Your task to perform on an android device: turn on the 24-hour format for clock Image 0: 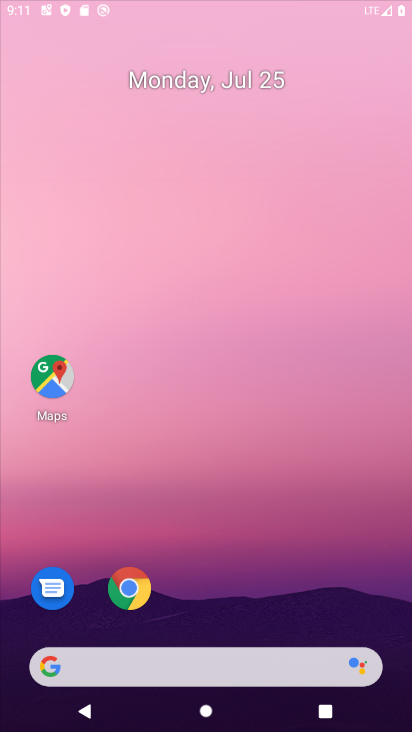
Step 0: drag from (231, 639) to (235, 370)
Your task to perform on an android device: turn on the 24-hour format for clock Image 1: 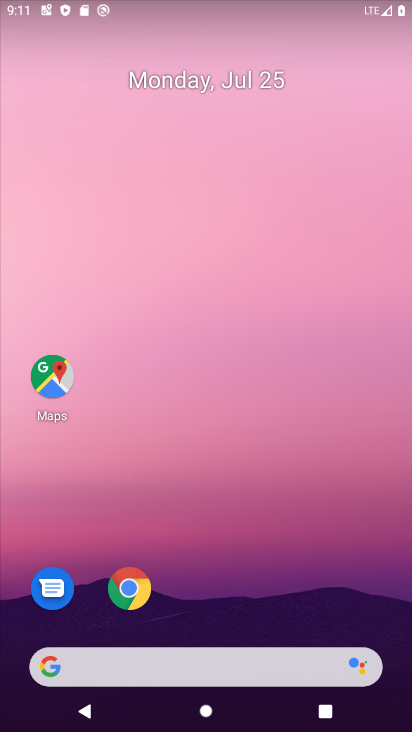
Step 1: drag from (177, 644) to (194, 192)
Your task to perform on an android device: turn on the 24-hour format for clock Image 2: 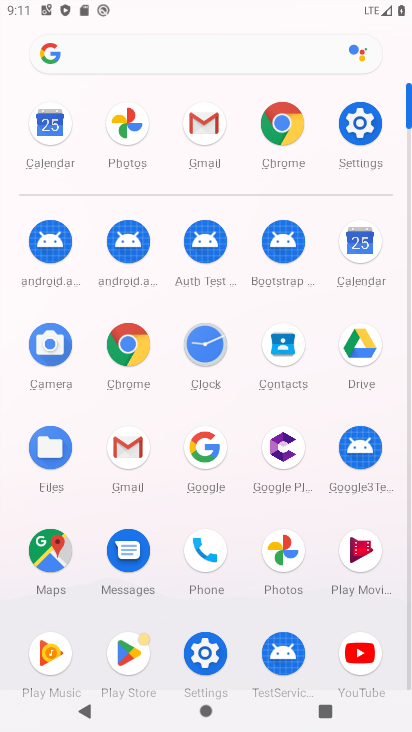
Step 2: click (220, 360)
Your task to perform on an android device: turn on the 24-hour format for clock Image 3: 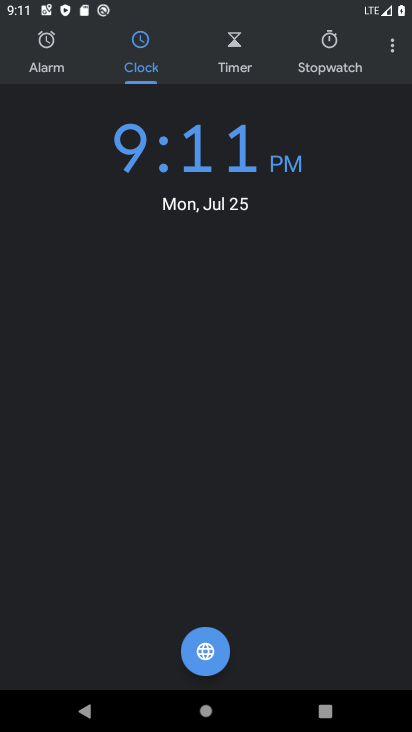
Step 3: click (396, 51)
Your task to perform on an android device: turn on the 24-hour format for clock Image 4: 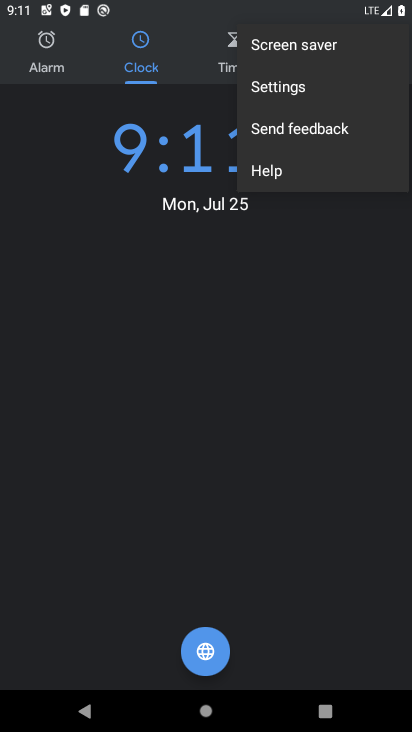
Step 4: click (321, 94)
Your task to perform on an android device: turn on the 24-hour format for clock Image 5: 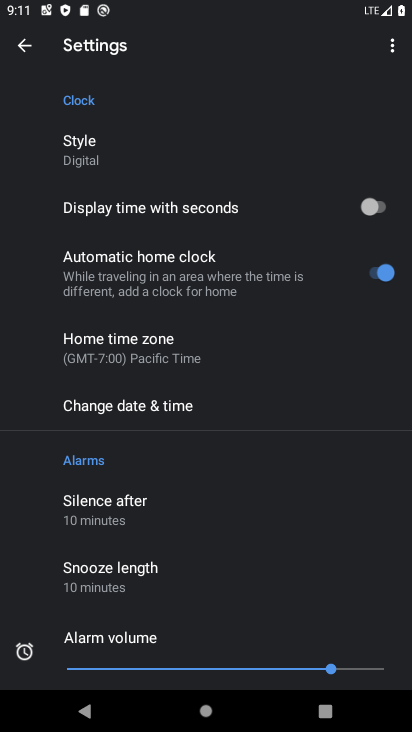
Step 5: click (165, 403)
Your task to perform on an android device: turn on the 24-hour format for clock Image 6: 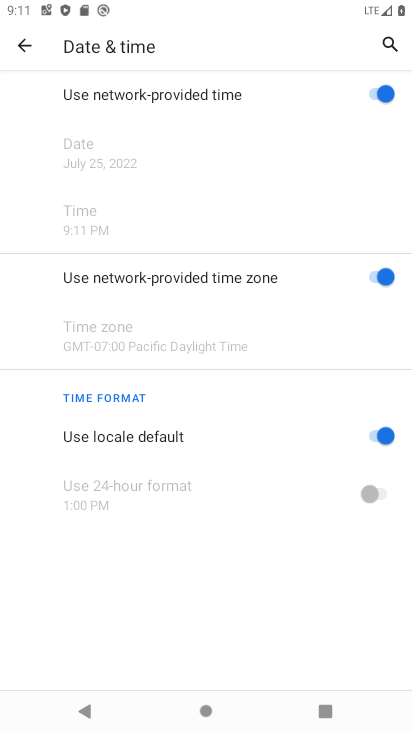
Step 6: click (375, 436)
Your task to perform on an android device: turn on the 24-hour format for clock Image 7: 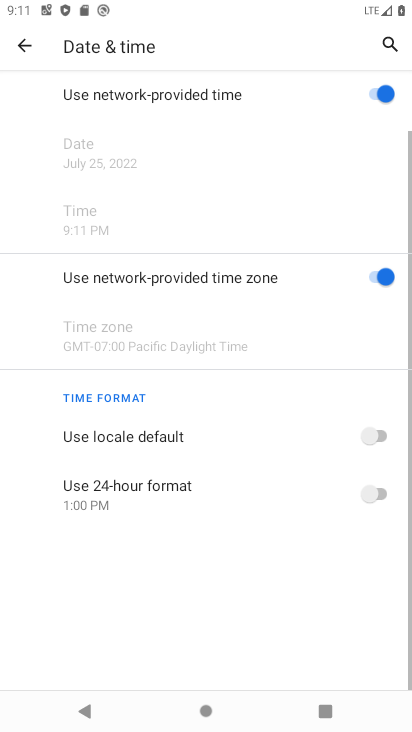
Step 7: click (380, 490)
Your task to perform on an android device: turn on the 24-hour format for clock Image 8: 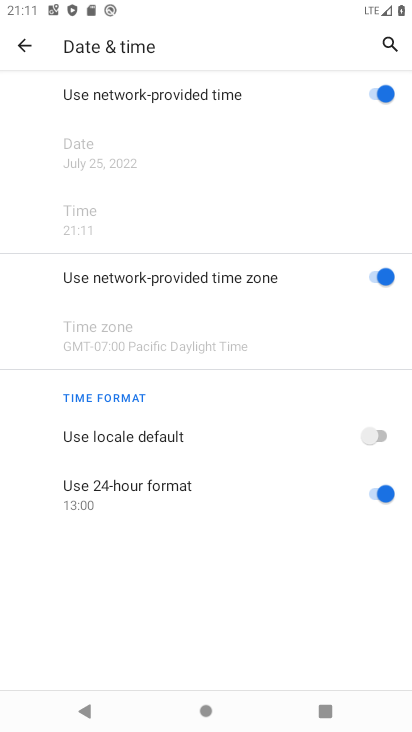
Step 8: task complete